Your task to perform on an android device: Search for Mexican restaurants on Maps Image 0: 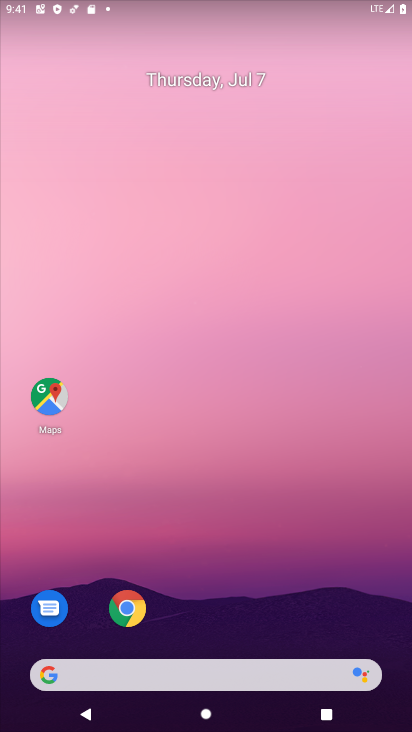
Step 0: click (46, 398)
Your task to perform on an android device: Search for Mexican restaurants on Maps Image 1: 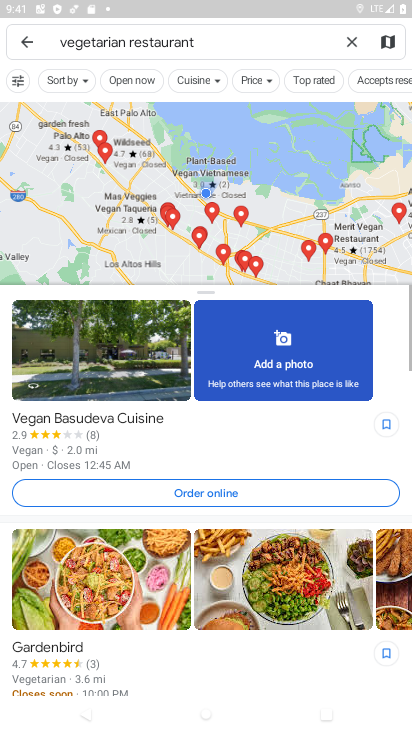
Step 1: click (350, 44)
Your task to perform on an android device: Search for Mexican restaurants on Maps Image 2: 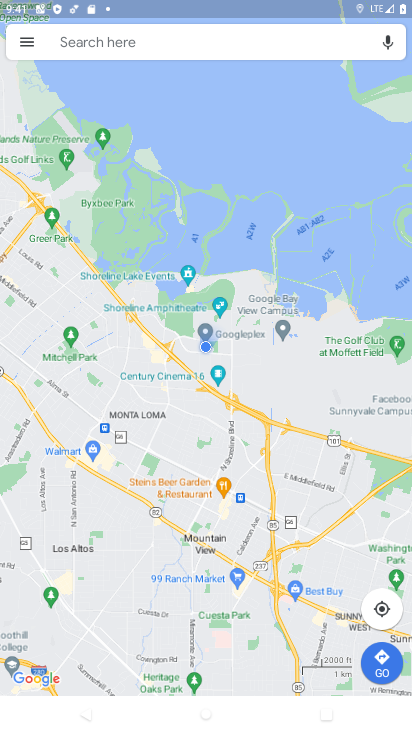
Step 2: click (143, 39)
Your task to perform on an android device: Search for Mexican restaurants on Maps Image 3: 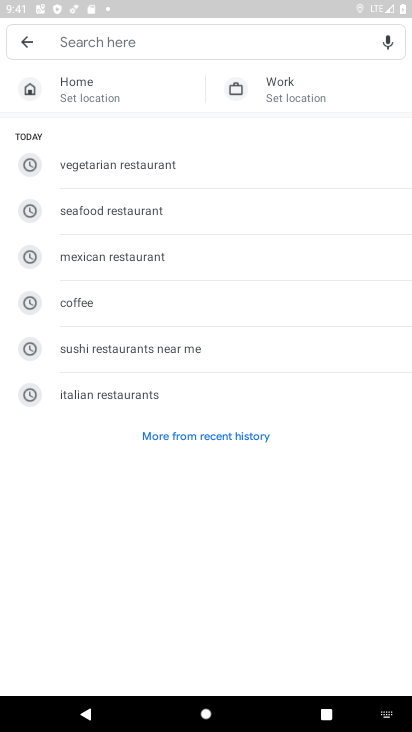
Step 3: type "Mexican restaurants"
Your task to perform on an android device: Search for Mexican restaurants on Maps Image 4: 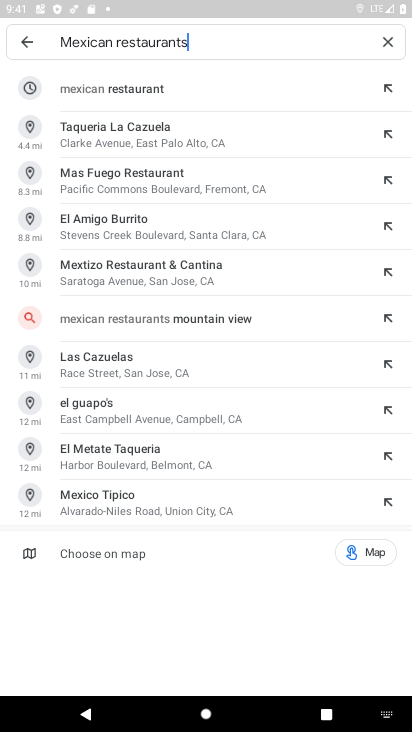
Step 4: click (188, 80)
Your task to perform on an android device: Search for Mexican restaurants on Maps Image 5: 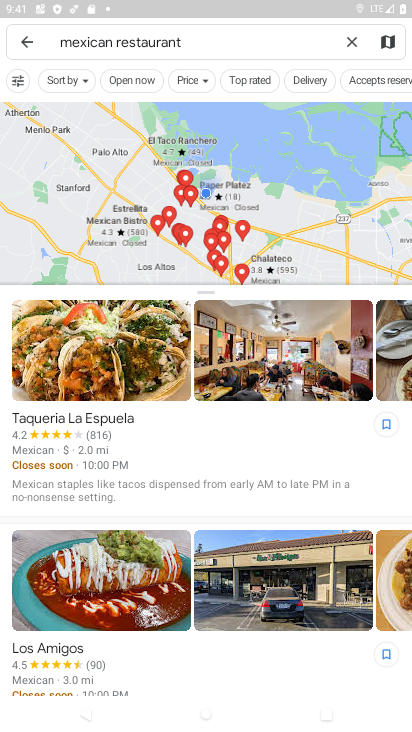
Step 5: task complete